Your task to perform on an android device: all mails in gmail Image 0: 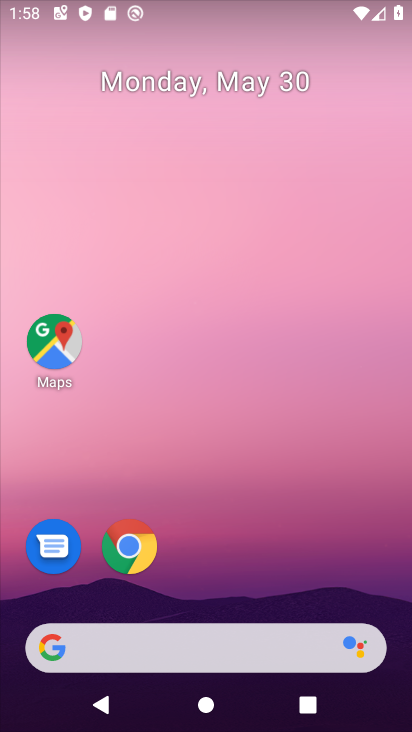
Step 0: press home button
Your task to perform on an android device: all mails in gmail Image 1: 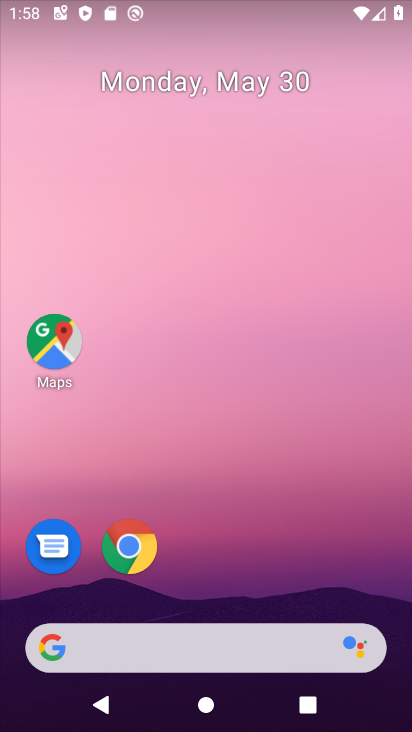
Step 1: drag from (226, 474) to (242, 64)
Your task to perform on an android device: all mails in gmail Image 2: 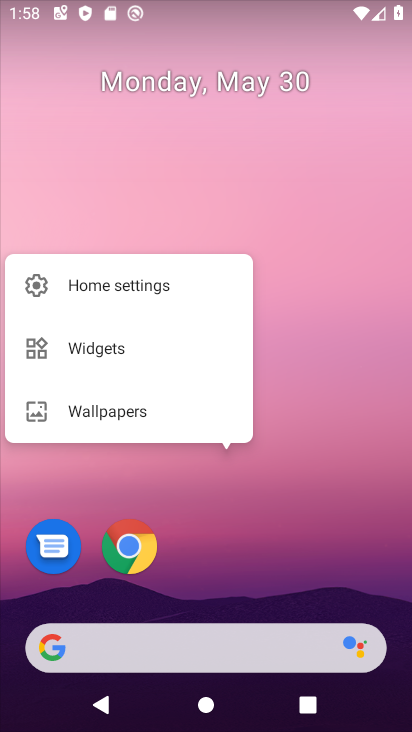
Step 2: drag from (211, 588) to (223, 36)
Your task to perform on an android device: all mails in gmail Image 3: 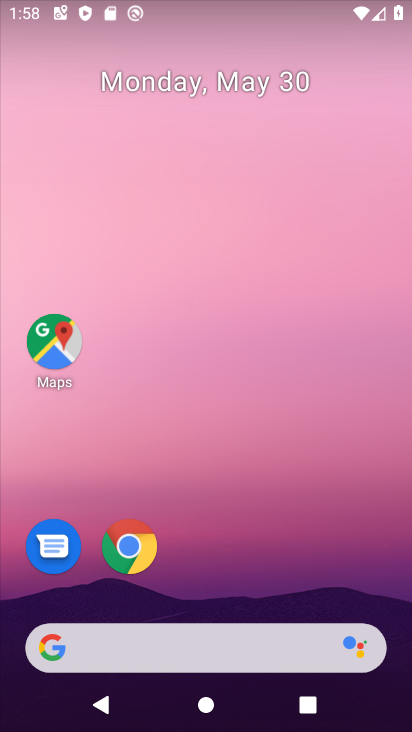
Step 3: drag from (227, 525) to (249, 159)
Your task to perform on an android device: all mails in gmail Image 4: 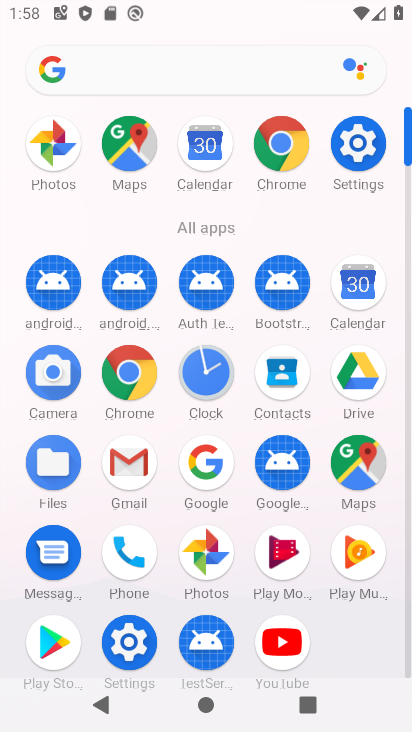
Step 4: click (132, 457)
Your task to perform on an android device: all mails in gmail Image 5: 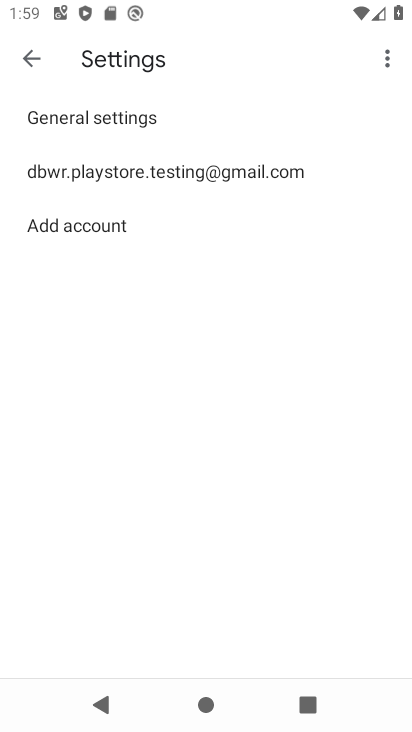
Step 5: click (34, 68)
Your task to perform on an android device: all mails in gmail Image 6: 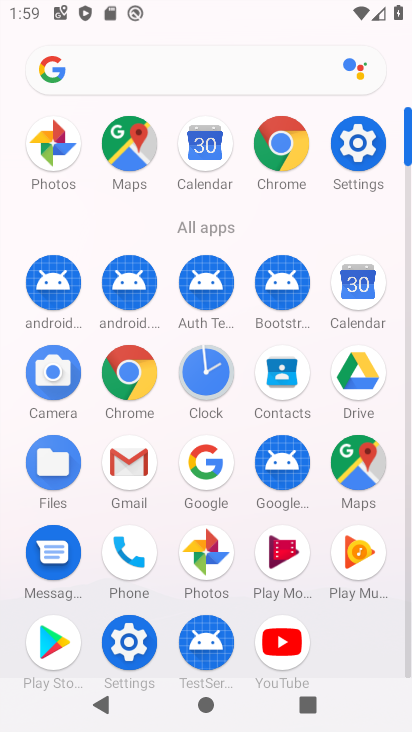
Step 6: click (132, 457)
Your task to perform on an android device: all mails in gmail Image 7: 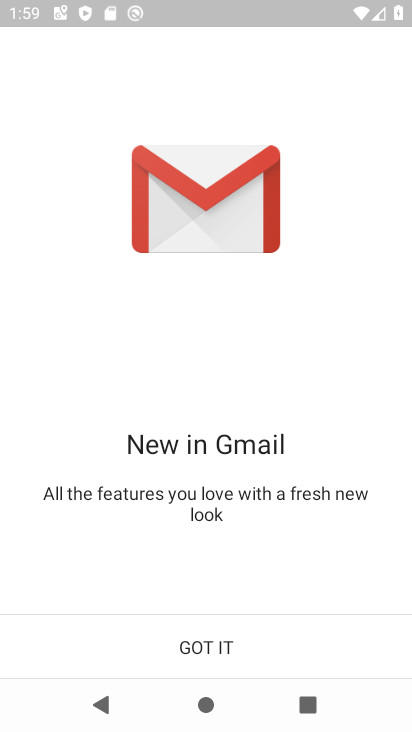
Step 7: click (214, 645)
Your task to perform on an android device: all mails in gmail Image 8: 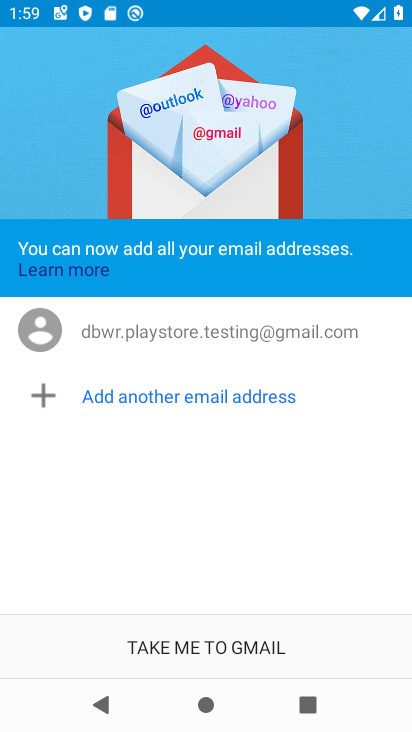
Step 8: click (201, 646)
Your task to perform on an android device: all mails in gmail Image 9: 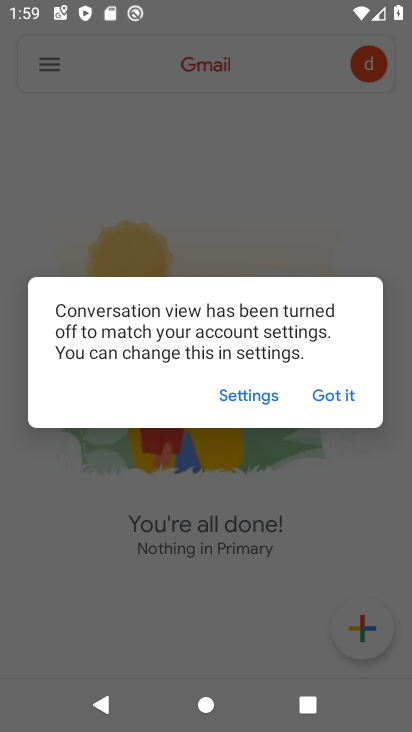
Step 9: click (326, 387)
Your task to perform on an android device: all mails in gmail Image 10: 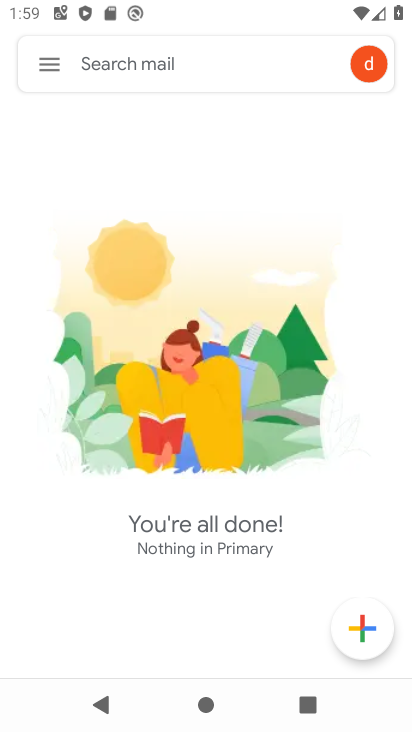
Step 10: click (52, 62)
Your task to perform on an android device: all mails in gmail Image 11: 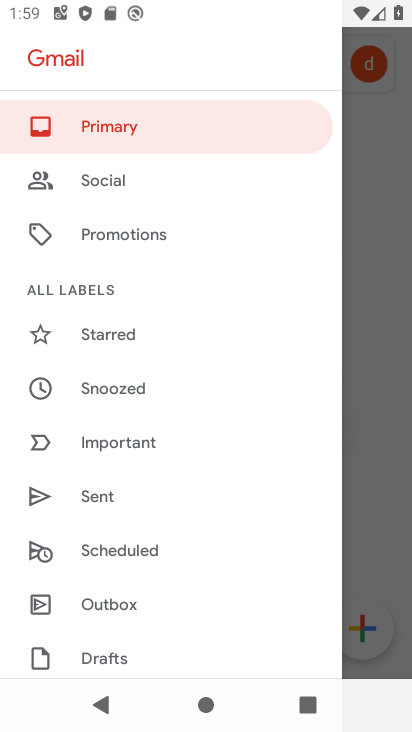
Step 11: drag from (132, 542) to (168, 214)
Your task to perform on an android device: all mails in gmail Image 12: 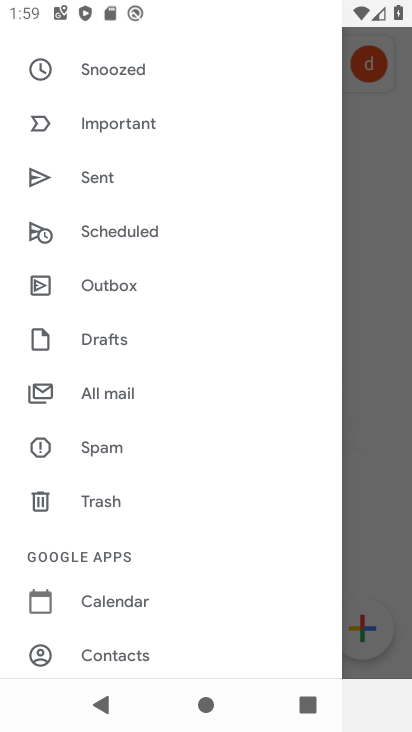
Step 12: click (149, 386)
Your task to perform on an android device: all mails in gmail Image 13: 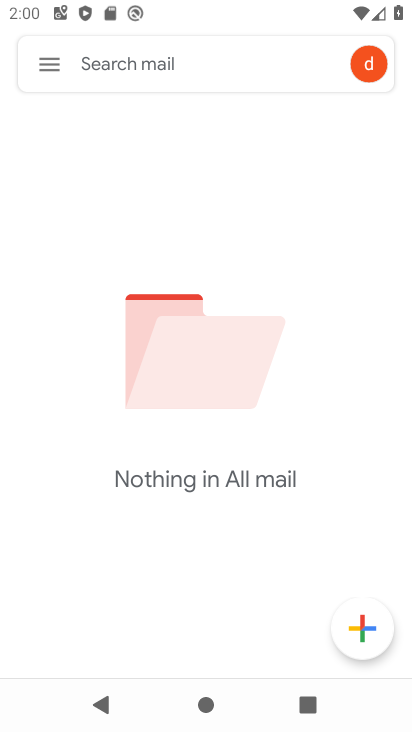
Step 13: click (50, 60)
Your task to perform on an android device: all mails in gmail Image 14: 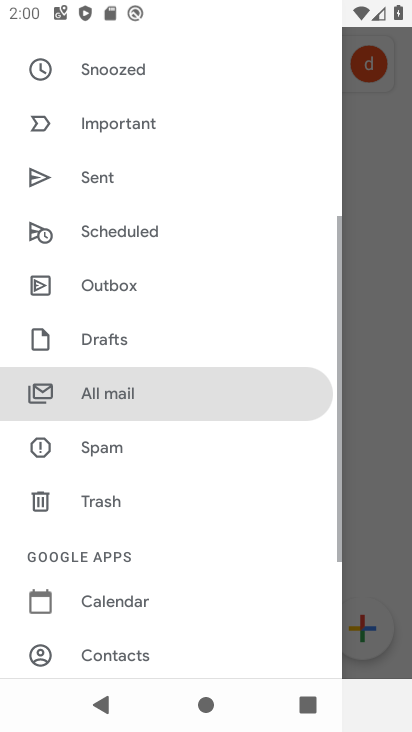
Step 14: task complete